Your task to perform on an android device: turn off sleep mode Image 0: 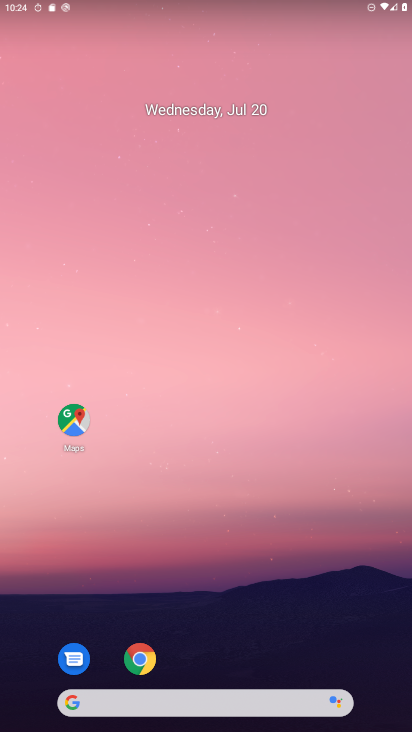
Step 0: drag from (252, 587) to (232, 217)
Your task to perform on an android device: turn off sleep mode Image 1: 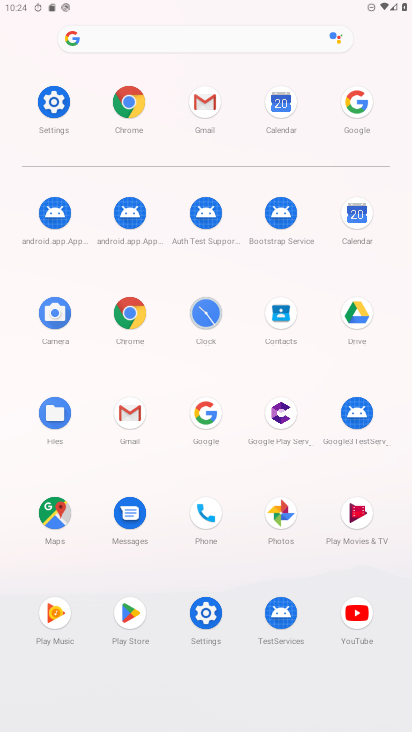
Step 1: click (49, 103)
Your task to perform on an android device: turn off sleep mode Image 2: 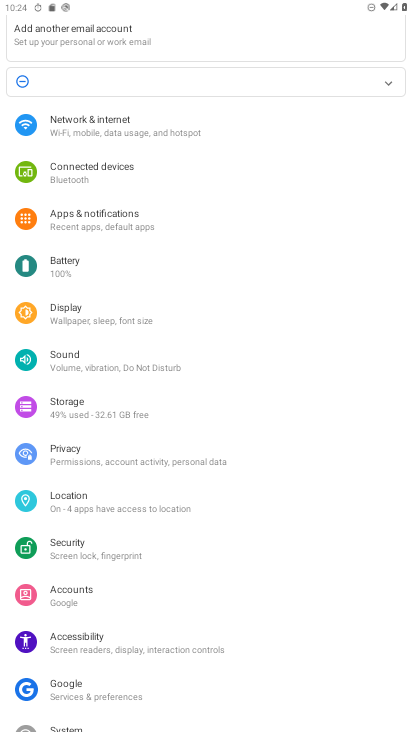
Step 2: click (91, 322)
Your task to perform on an android device: turn off sleep mode Image 3: 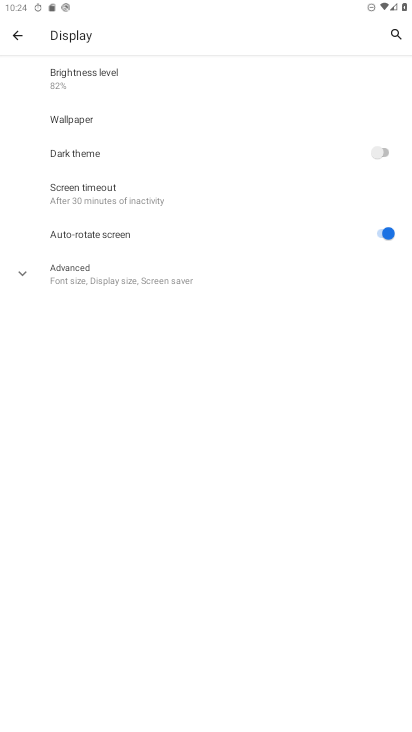
Step 3: click (97, 192)
Your task to perform on an android device: turn off sleep mode Image 4: 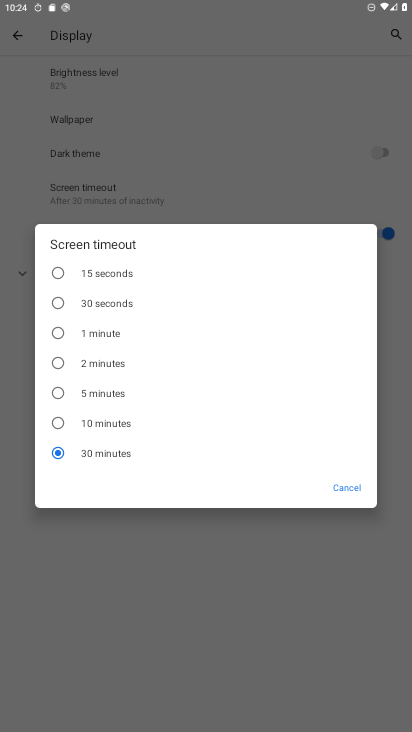
Step 4: task complete